Your task to perform on an android device: Find coffee shops on Maps Image 0: 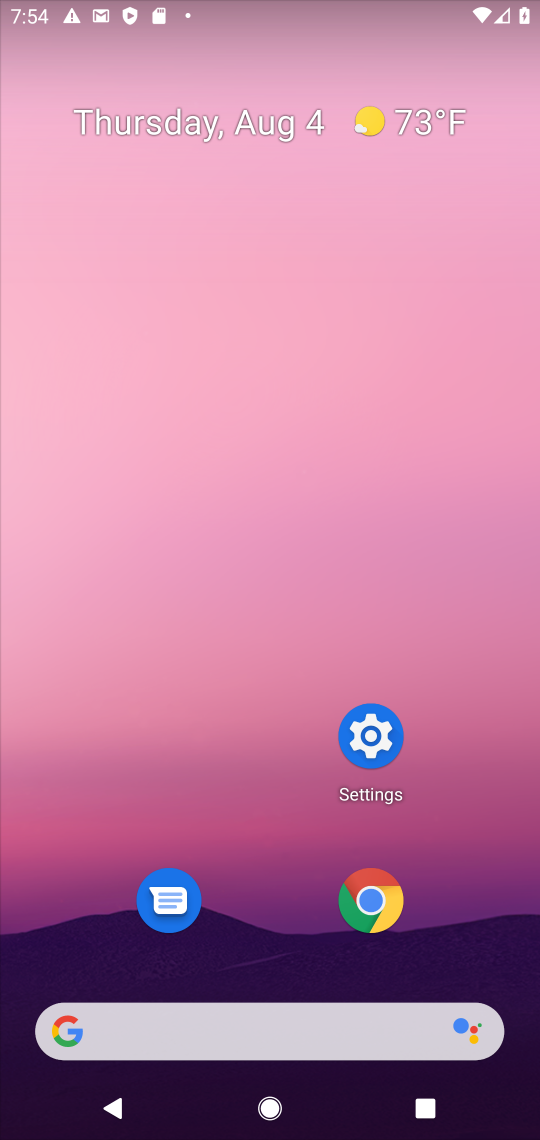
Step 0: press home button
Your task to perform on an android device: Find coffee shops on Maps Image 1: 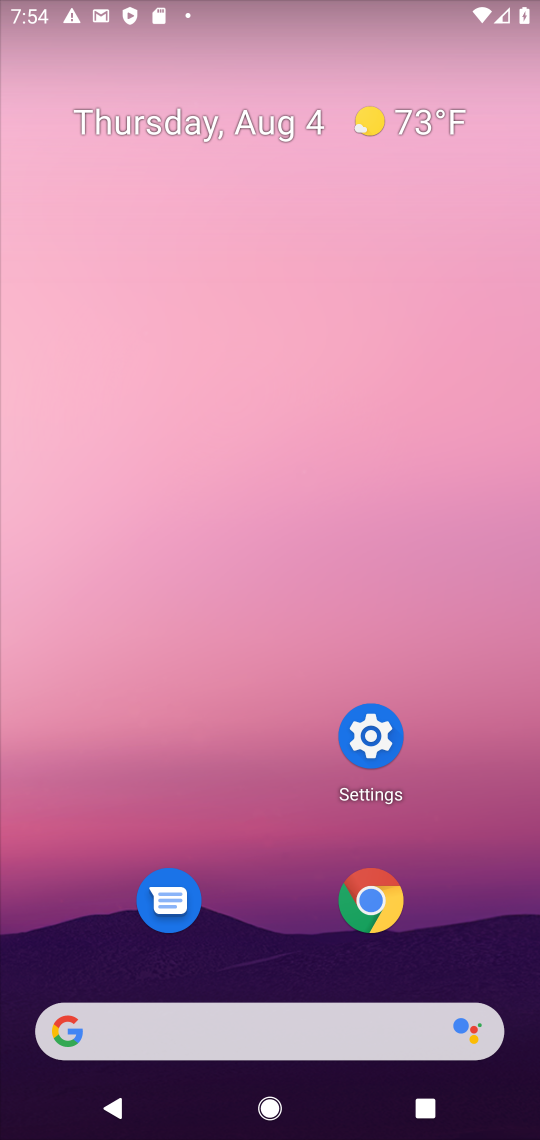
Step 1: drag from (286, 1036) to (461, 272)
Your task to perform on an android device: Find coffee shops on Maps Image 2: 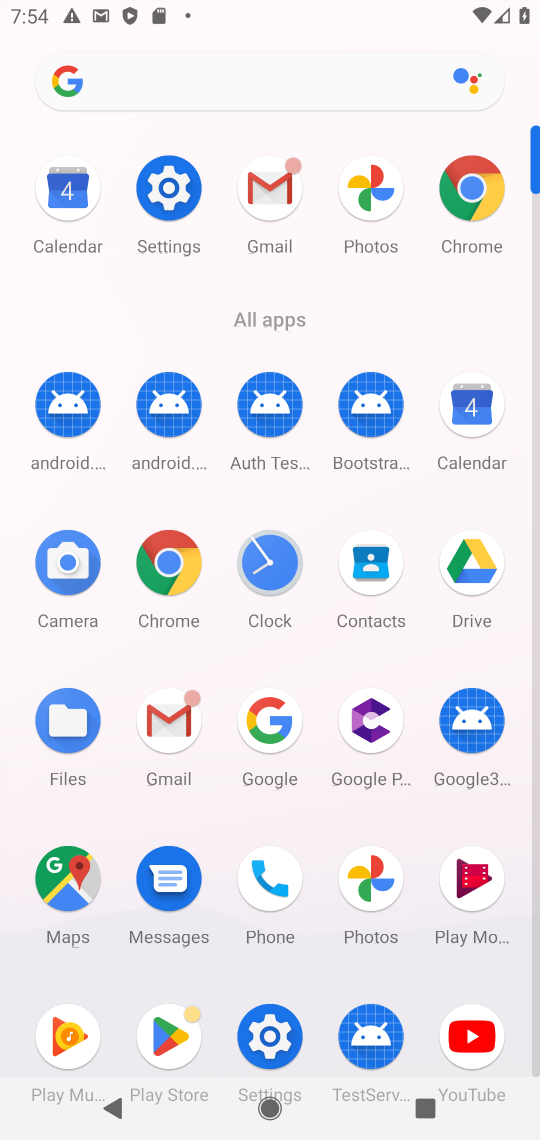
Step 2: drag from (61, 879) to (124, 688)
Your task to perform on an android device: Find coffee shops on Maps Image 3: 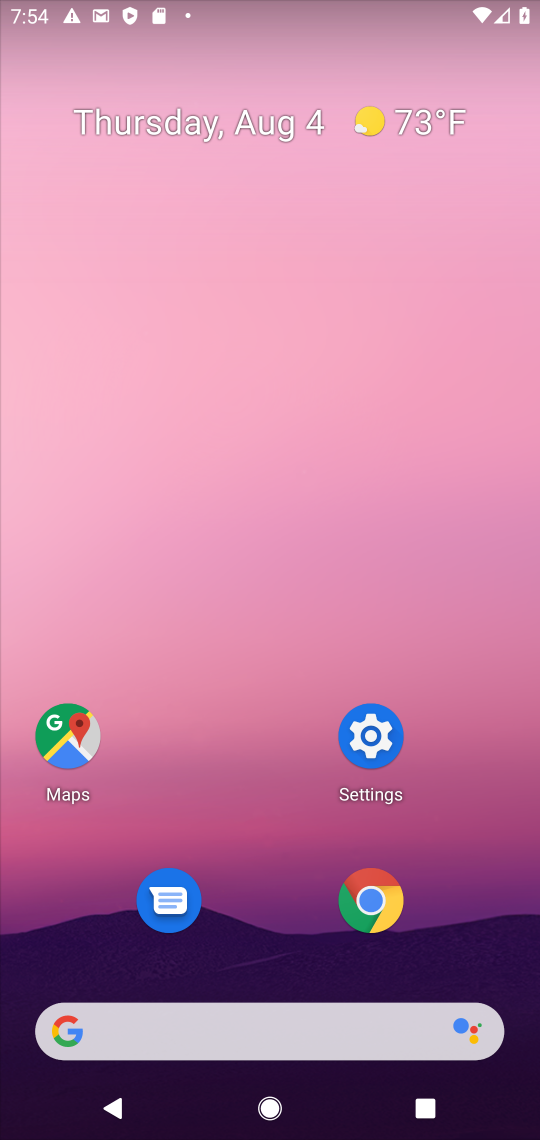
Step 3: click (74, 744)
Your task to perform on an android device: Find coffee shops on Maps Image 4: 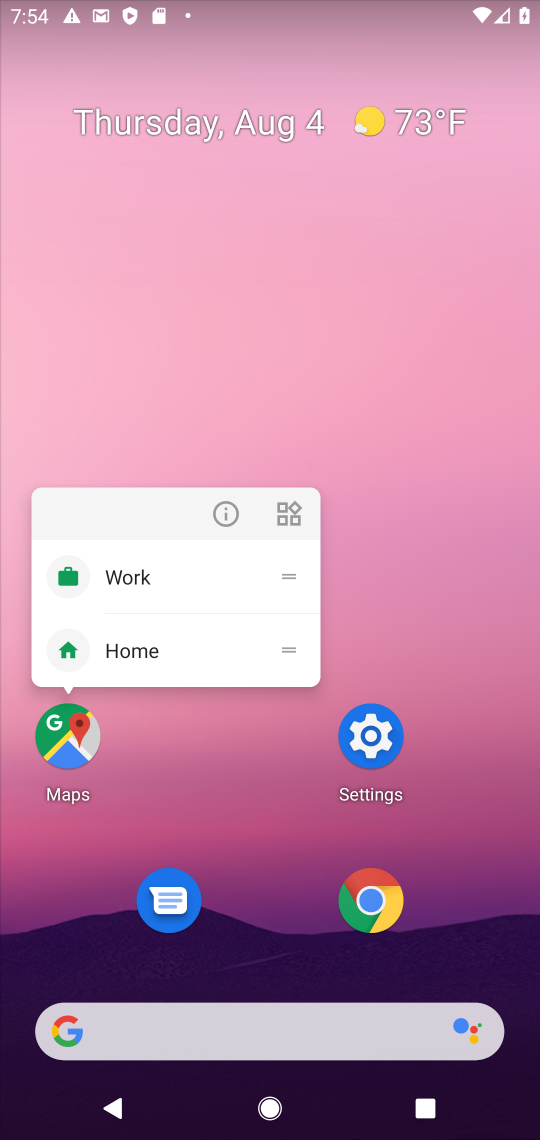
Step 4: click (74, 743)
Your task to perform on an android device: Find coffee shops on Maps Image 5: 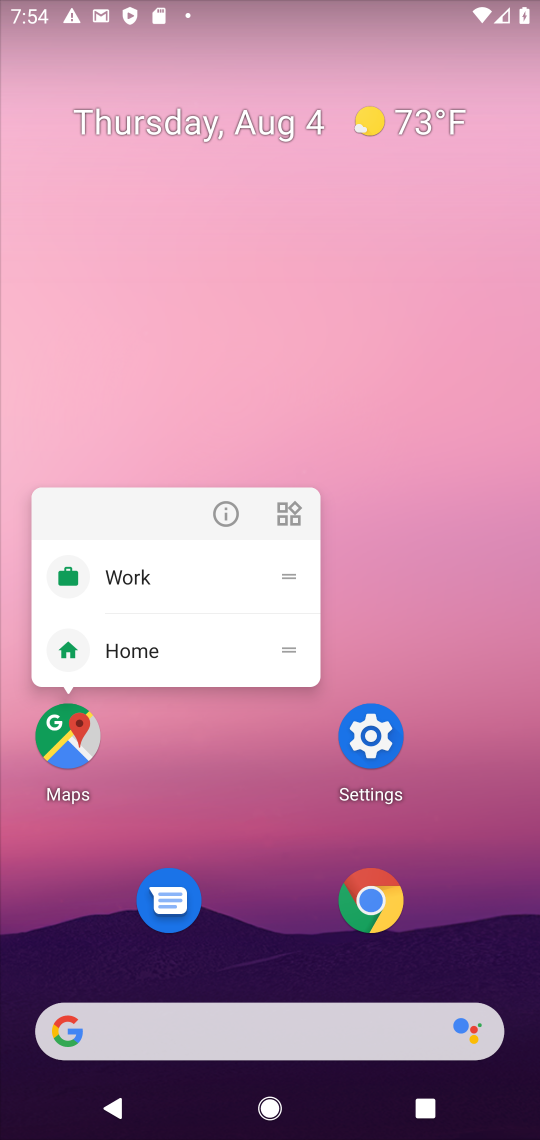
Step 5: click (71, 739)
Your task to perform on an android device: Find coffee shops on Maps Image 6: 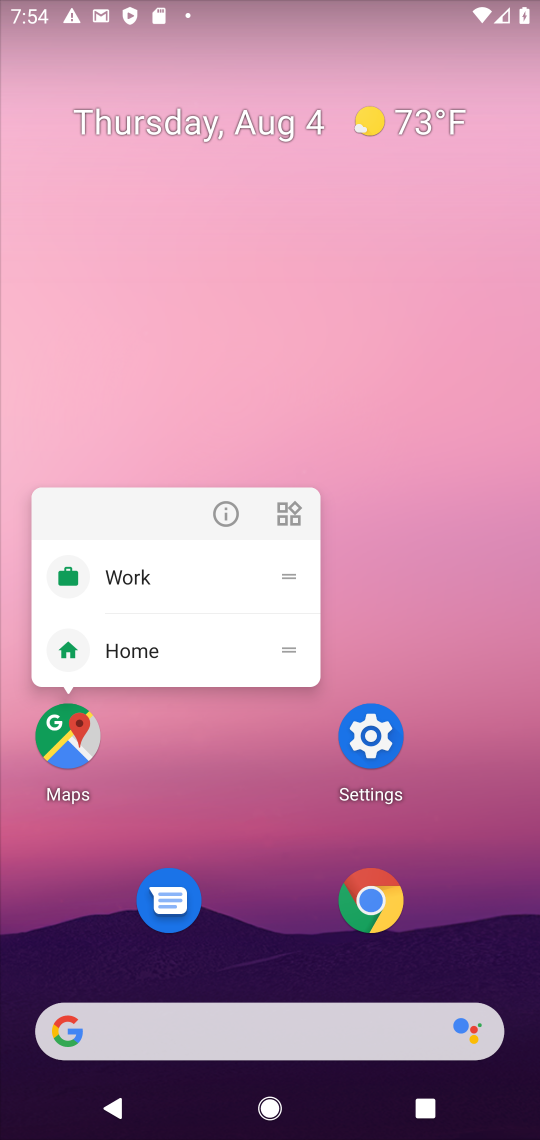
Step 6: click (71, 740)
Your task to perform on an android device: Find coffee shops on Maps Image 7: 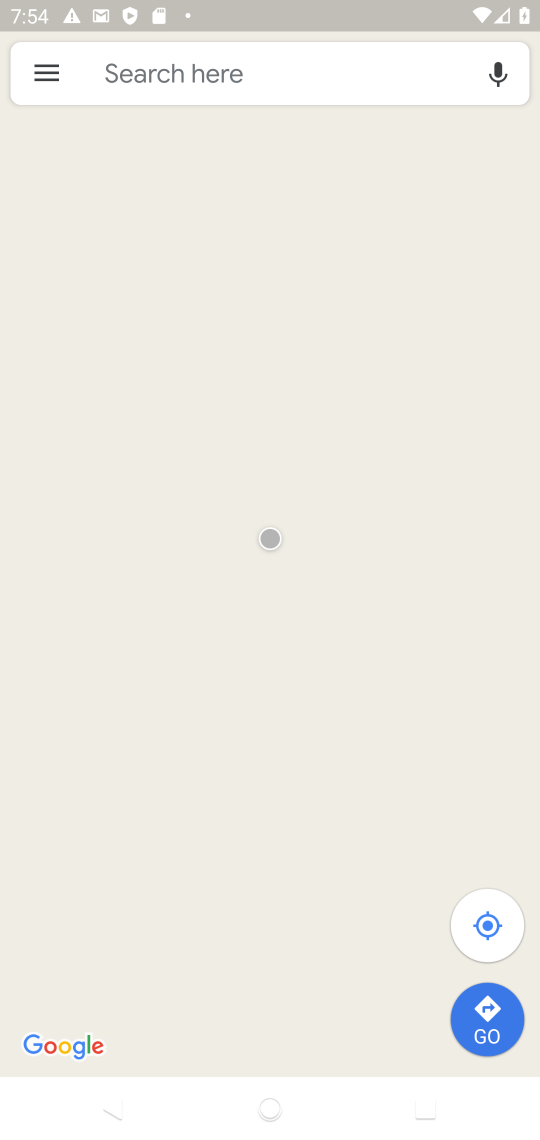
Step 7: click (201, 66)
Your task to perform on an android device: Find coffee shops on Maps Image 8: 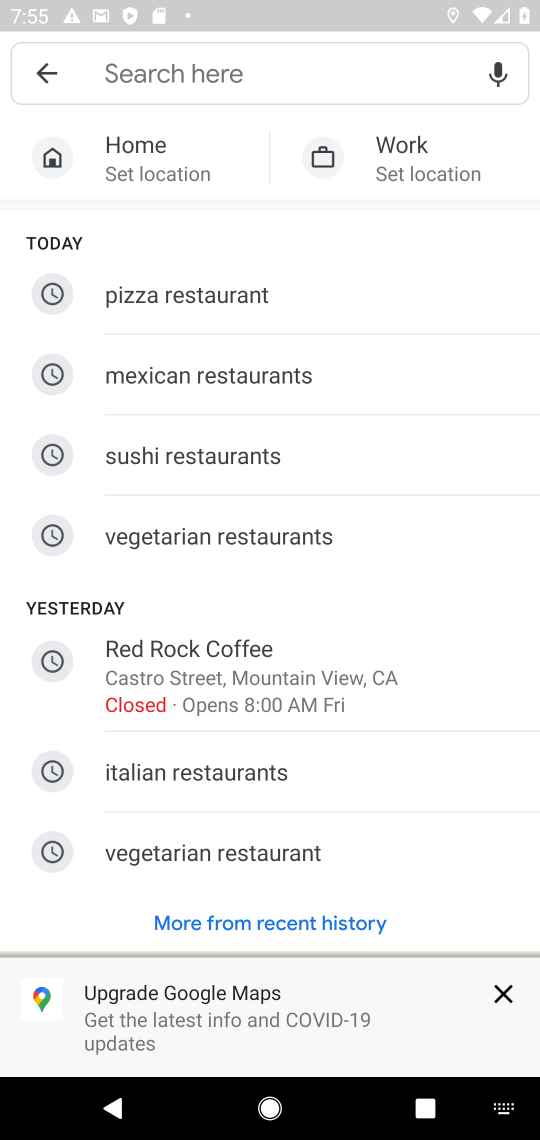
Step 8: type "coffee"
Your task to perform on an android device: Find coffee shops on Maps Image 9: 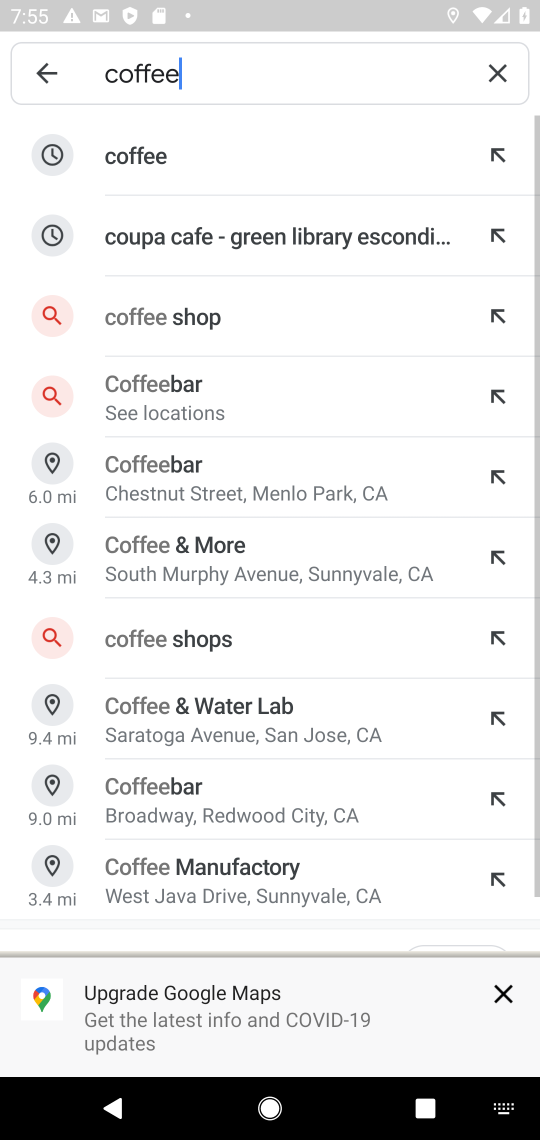
Step 9: click (157, 169)
Your task to perform on an android device: Find coffee shops on Maps Image 10: 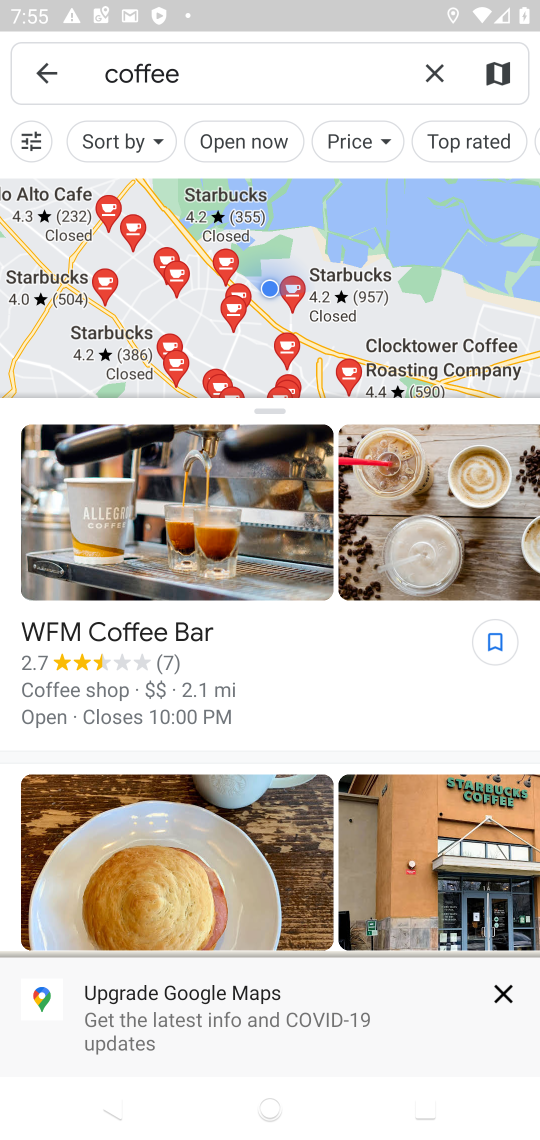
Step 10: task complete